Your task to perform on an android device: Open the web browser Image 0: 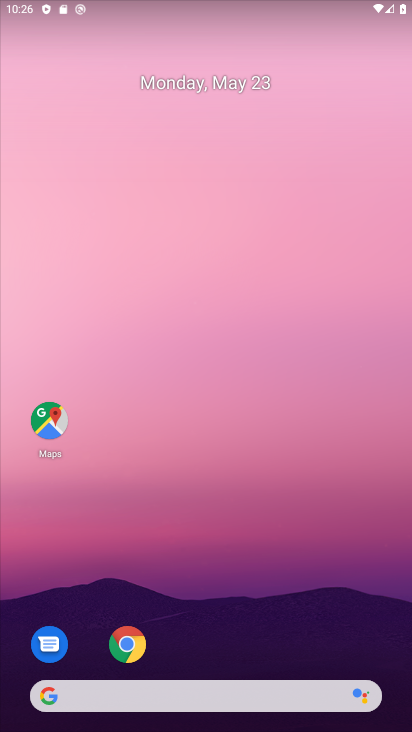
Step 0: drag from (276, 650) to (175, 65)
Your task to perform on an android device: Open the web browser Image 1: 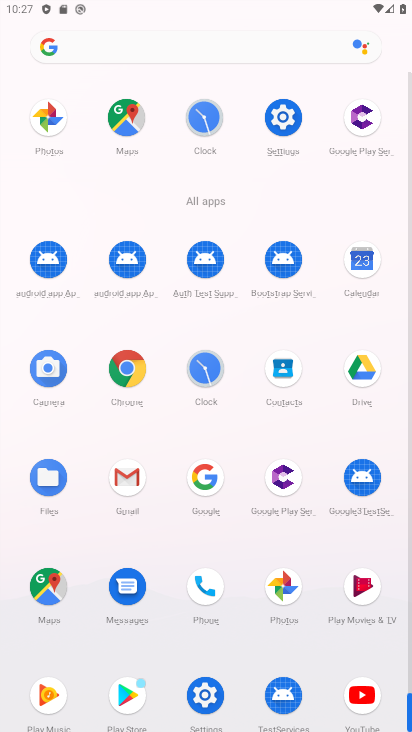
Step 1: click (117, 372)
Your task to perform on an android device: Open the web browser Image 2: 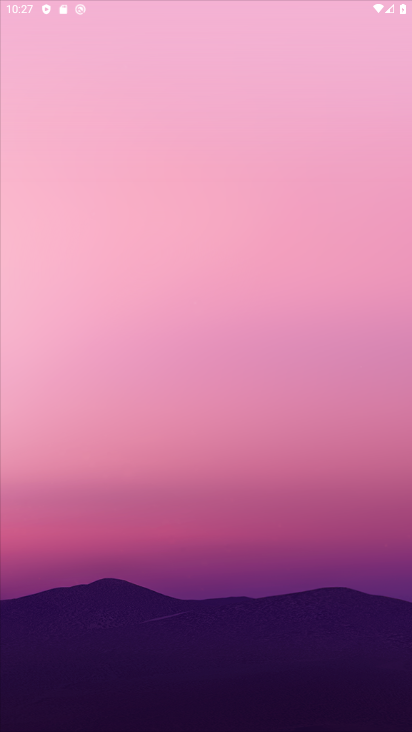
Step 2: click (126, 365)
Your task to perform on an android device: Open the web browser Image 3: 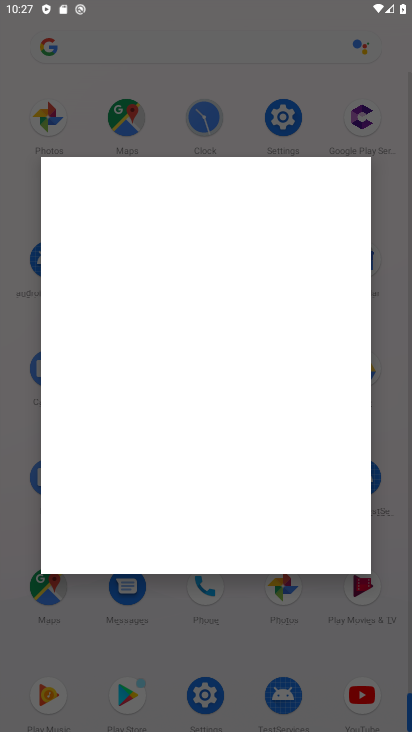
Step 3: click (129, 365)
Your task to perform on an android device: Open the web browser Image 4: 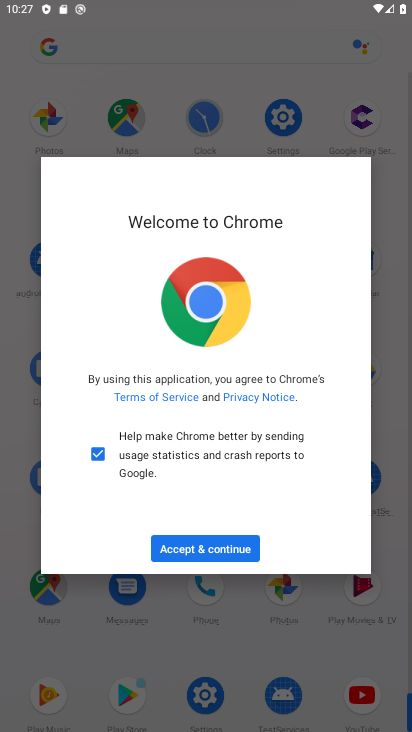
Step 4: click (133, 363)
Your task to perform on an android device: Open the web browser Image 5: 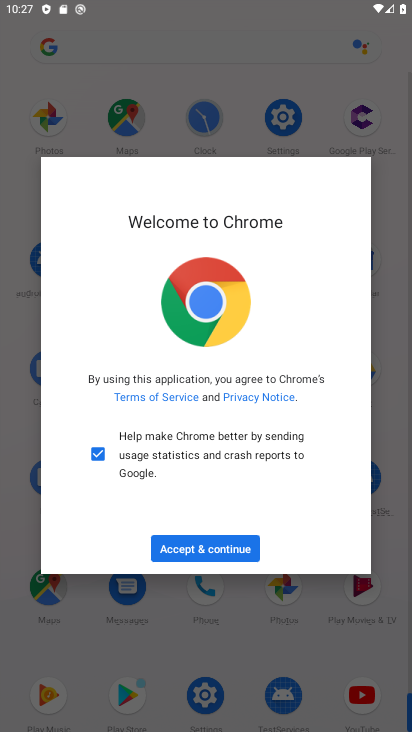
Step 5: click (203, 539)
Your task to perform on an android device: Open the web browser Image 6: 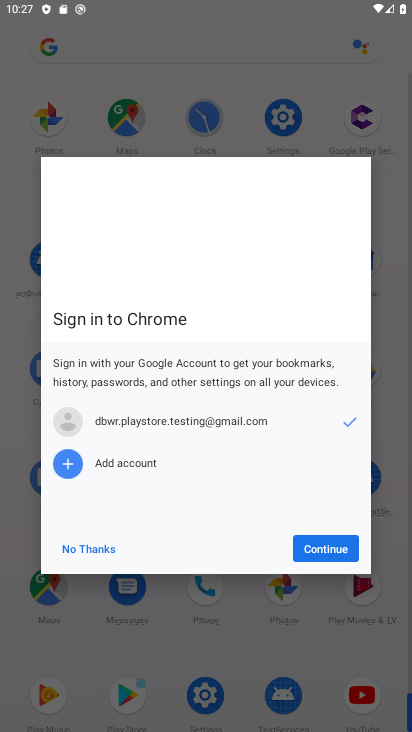
Step 6: click (203, 539)
Your task to perform on an android device: Open the web browser Image 7: 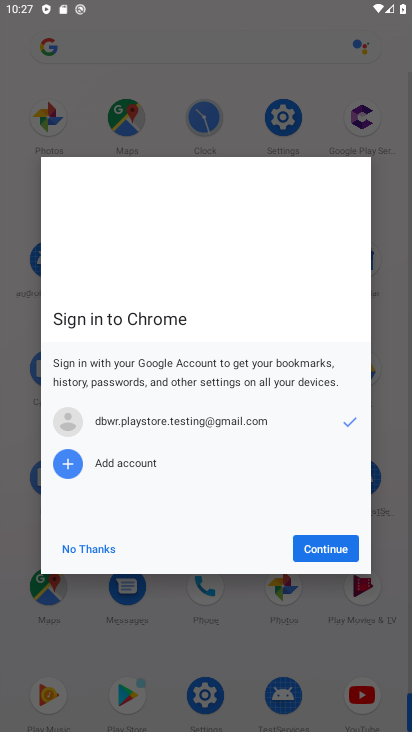
Step 7: click (188, 583)
Your task to perform on an android device: Open the web browser Image 8: 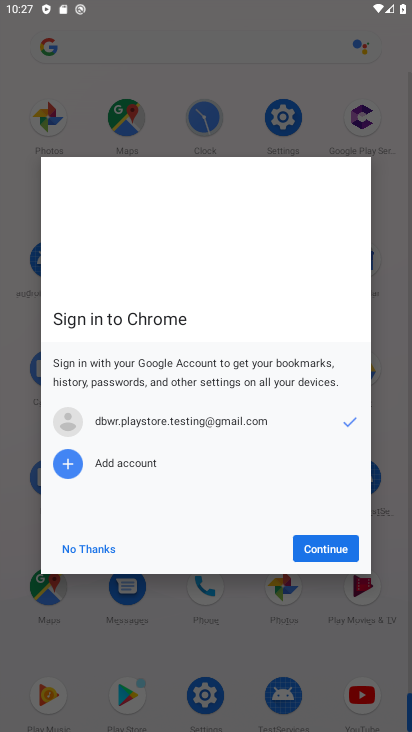
Step 8: click (367, 546)
Your task to perform on an android device: Open the web browser Image 9: 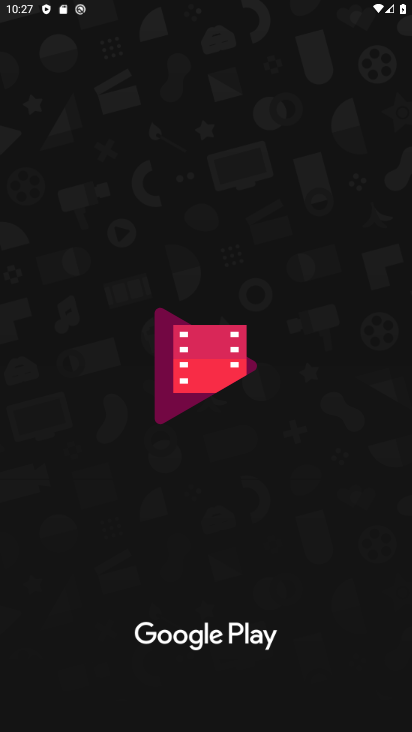
Step 9: task complete